Your task to perform on an android device: open a new tab in the chrome app Image 0: 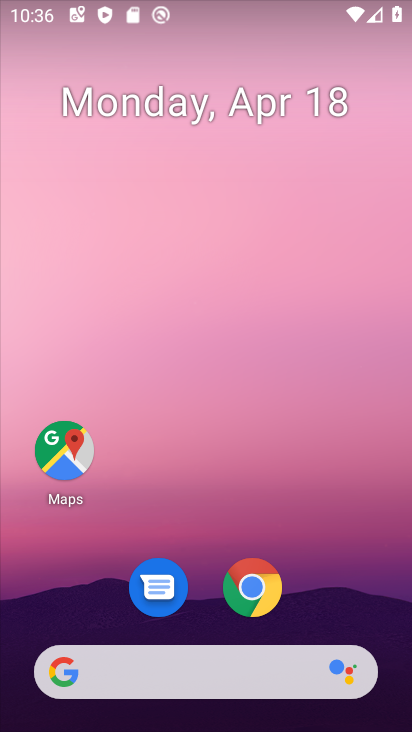
Step 0: drag from (359, 568) to (321, 72)
Your task to perform on an android device: open a new tab in the chrome app Image 1: 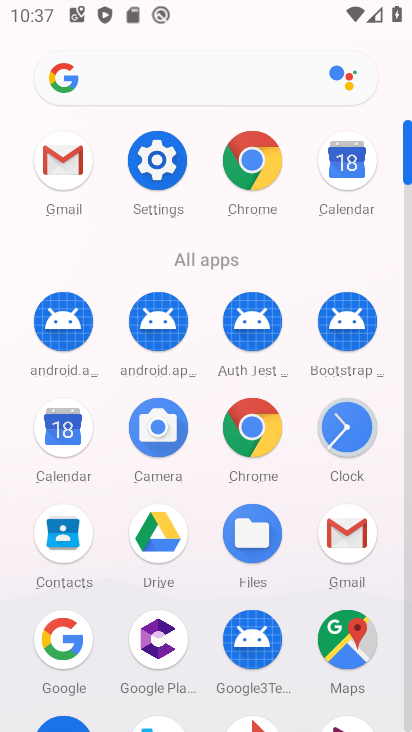
Step 1: click (238, 437)
Your task to perform on an android device: open a new tab in the chrome app Image 2: 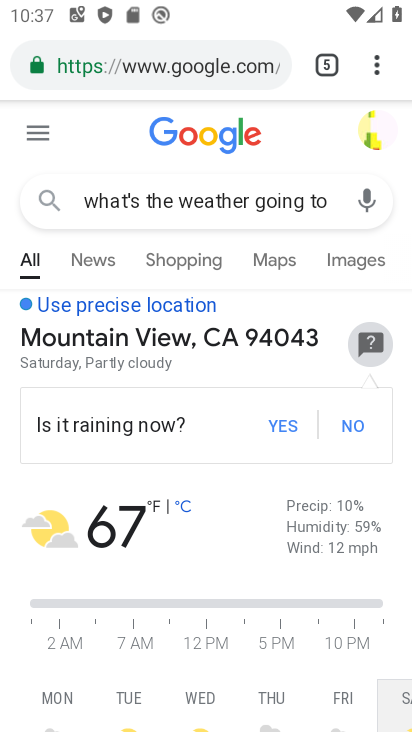
Step 2: click (322, 66)
Your task to perform on an android device: open a new tab in the chrome app Image 3: 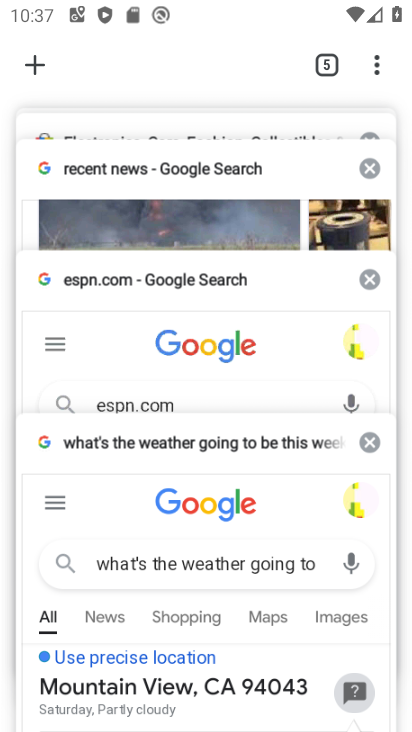
Step 3: click (35, 61)
Your task to perform on an android device: open a new tab in the chrome app Image 4: 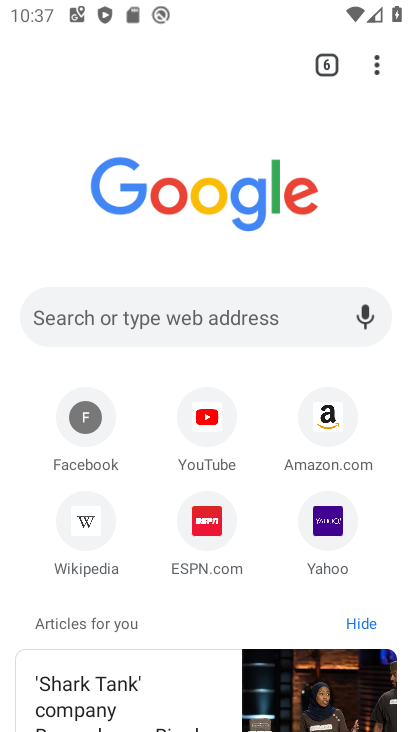
Step 4: task complete